Your task to perform on an android device: refresh tabs in the chrome app Image 0: 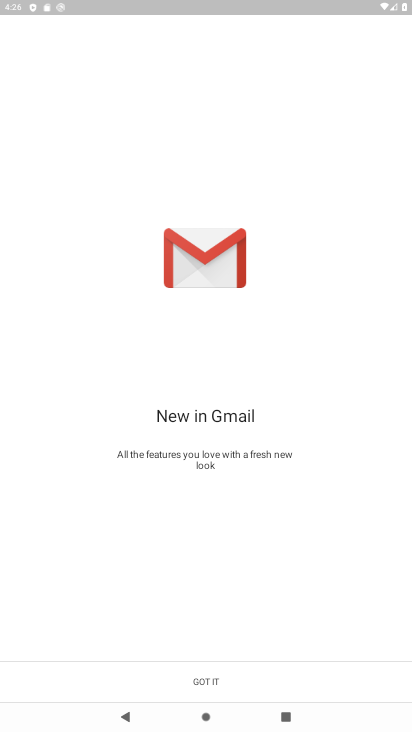
Step 0: press home button
Your task to perform on an android device: refresh tabs in the chrome app Image 1: 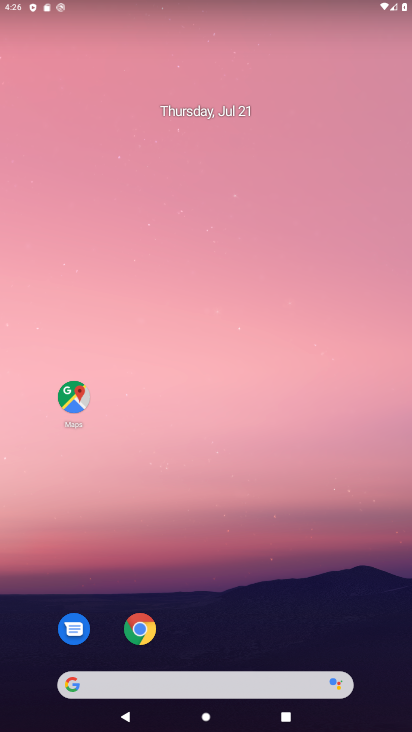
Step 1: click (141, 620)
Your task to perform on an android device: refresh tabs in the chrome app Image 2: 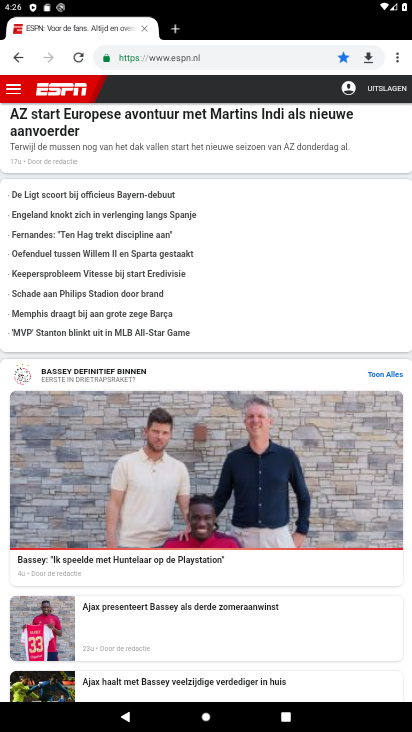
Step 2: click (396, 60)
Your task to perform on an android device: refresh tabs in the chrome app Image 3: 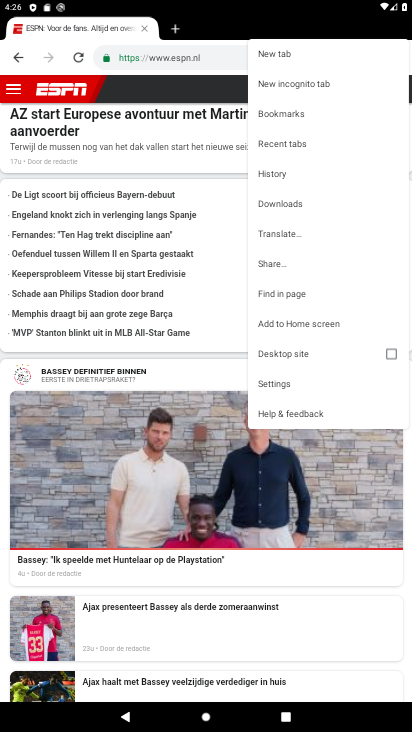
Step 3: click (76, 53)
Your task to perform on an android device: refresh tabs in the chrome app Image 4: 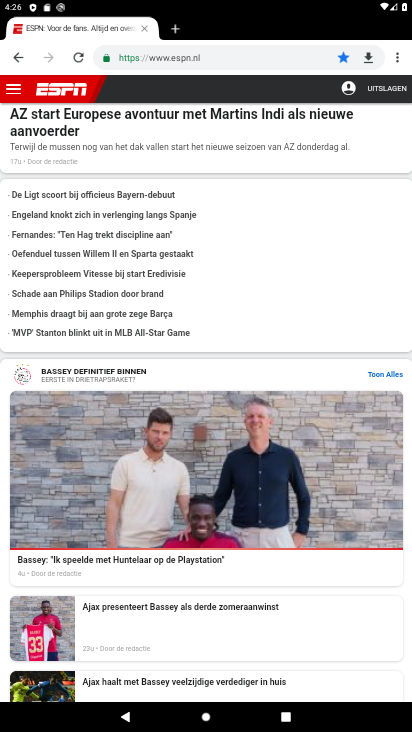
Step 4: click (77, 53)
Your task to perform on an android device: refresh tabs in the chrome app Image 5: 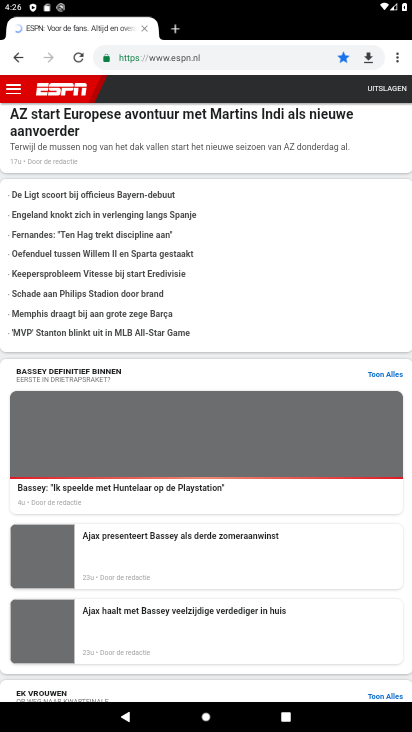
Step 5: task complete